Your task to perform on an android device: open chrome and create a bookmark for the current page Image 0: 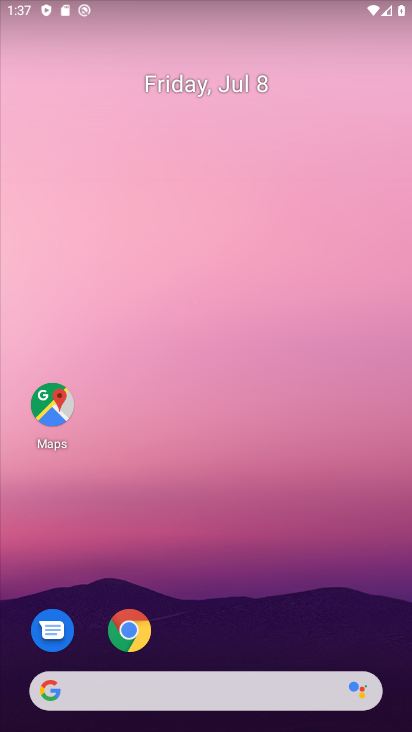
Step 0: click (135, 626)
Your task to perform on an android device: open chrome and create a bookmark for the current page Image 1: 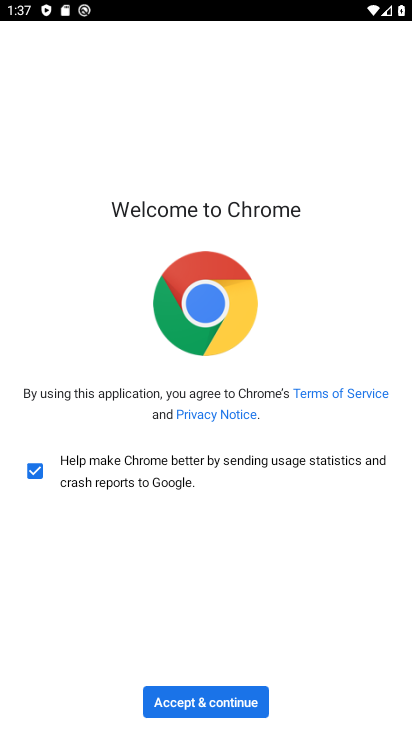
Step 1: click (185, 695)
Your task to perform on an android device: open chrome and create a bookmark for the current page Image 2: 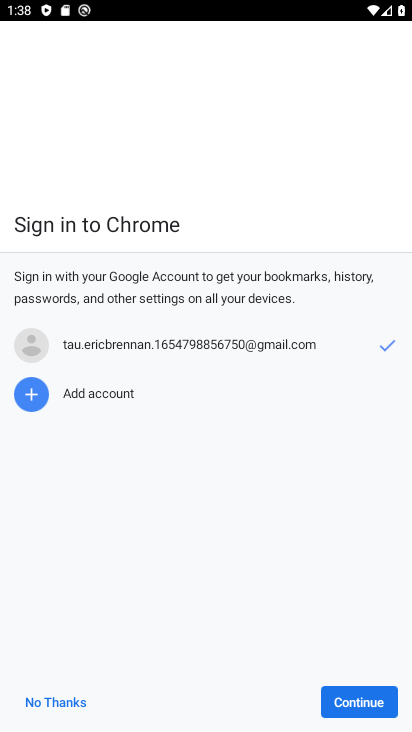
Step 2: click (341, 703)
Your task to perform on an android device: open chrome and create a bookmark for the current page Image 3: 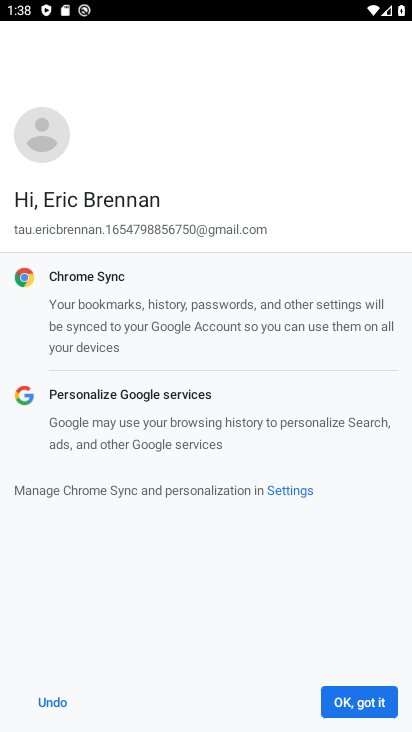
Step 3: click (364, 705)
Your task to perform on an android device: open chrome and create a bookmark for the current page Image 4: 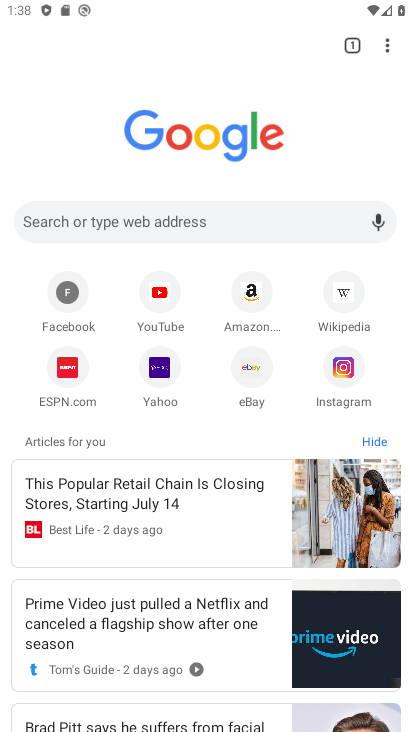
Step 4: click (383, 42)
Your task to perform on an android device: open chrome and create a bookmark for the current page Image 5: 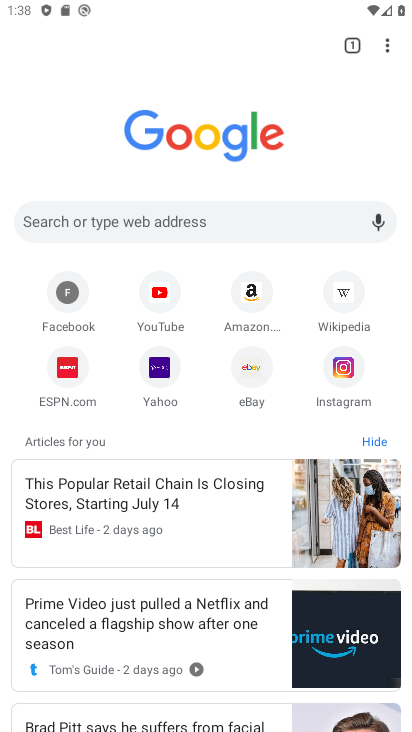
Step 5: click (390, 52)
Your task to perform on an android device: open chrome and create a bookmark for the current page Image 6: 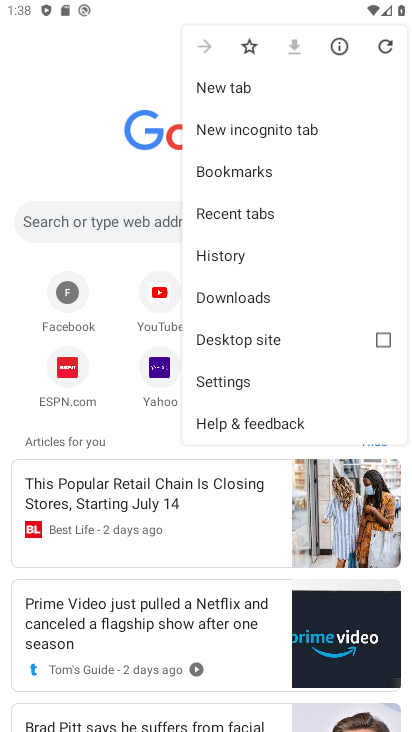
Step 6: click (246, 42)
Your task to perform on an android device: open chrome and create a bookmark for the current page Image 7: 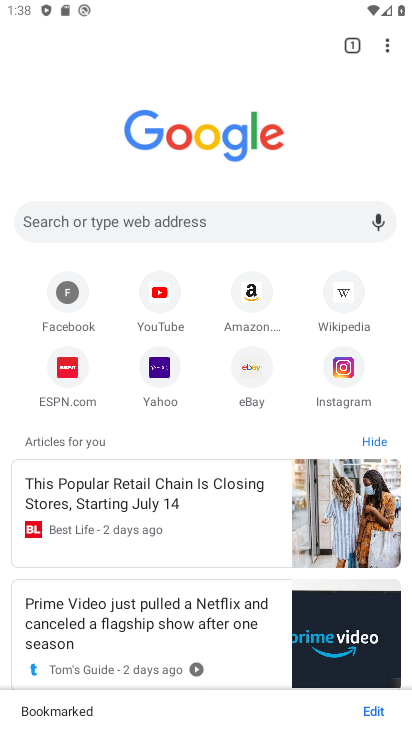
Step 7: task complete